Your task to perform on an android device: Open Chrome and go to settings Image 0: 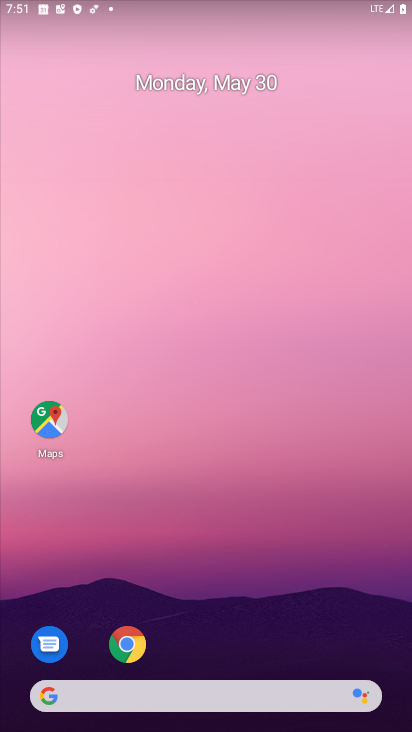
Step 0: click (126, 644)
Your task to perform on an android device: Open Chrome and go to settings Image 1: 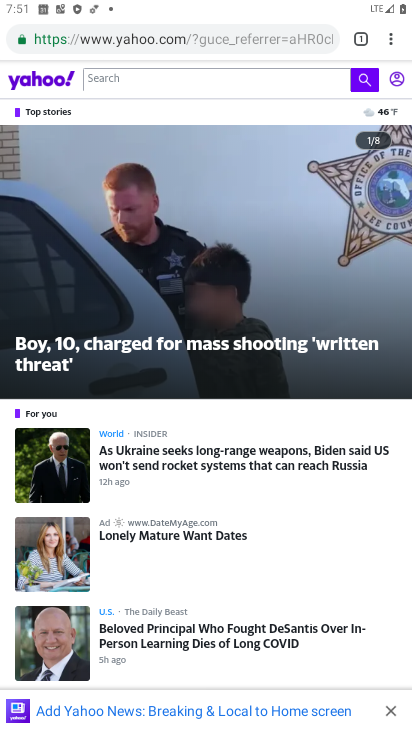
Step 1: click (390, 38)
Your task to perform on an android device: Open Chrome and go to settings Image 2: 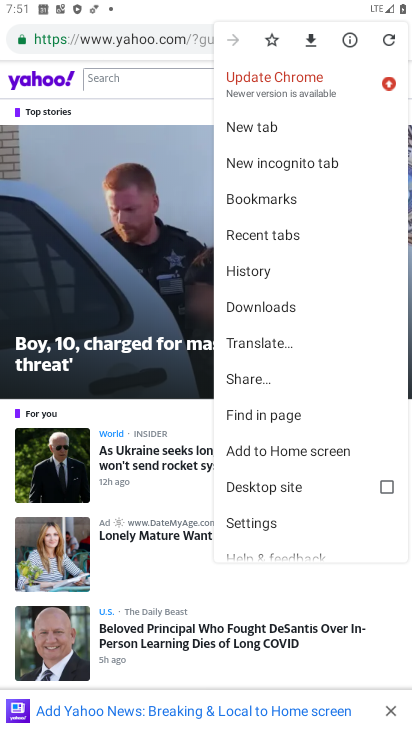
Step 2: click (260, 521)
Your task to perform on an android device: Open Chrome and go to settings Image 3: 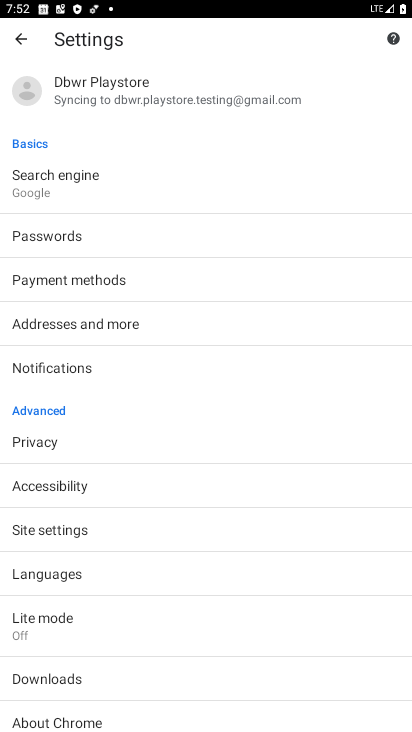
Step 3: task complete